Your task to perform on an android device: open a bookmark in the chrome app Image 0: 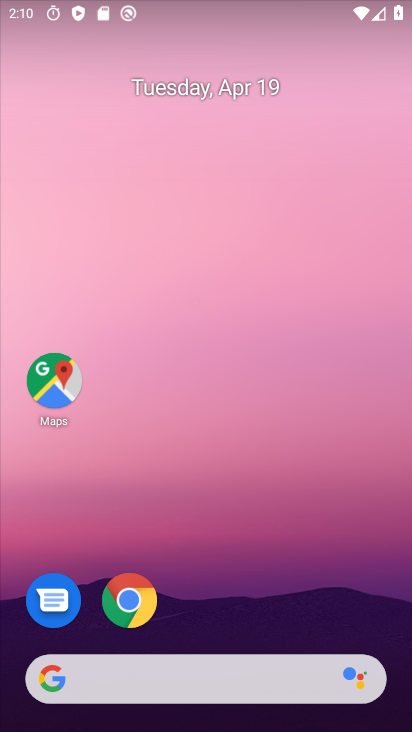
Step 0: drag from (322, 707) to (274, 356)
Your task to perform on an android device: open a bookmark in the chrome app Image 1: 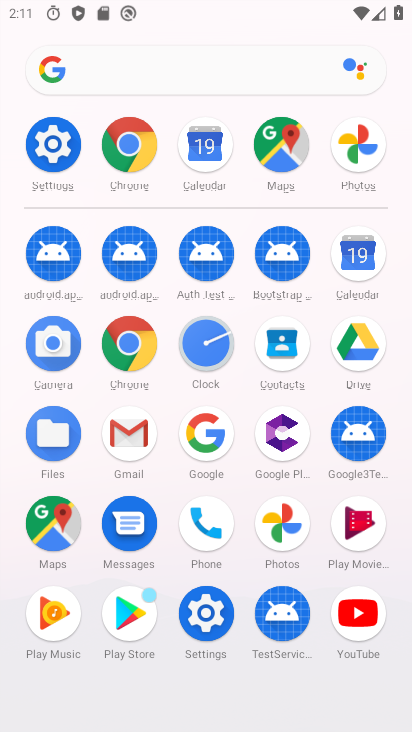
Step 1: click (135, 155)
Your task to perform on an android device: open a bookmark in the chrome app Image 2: 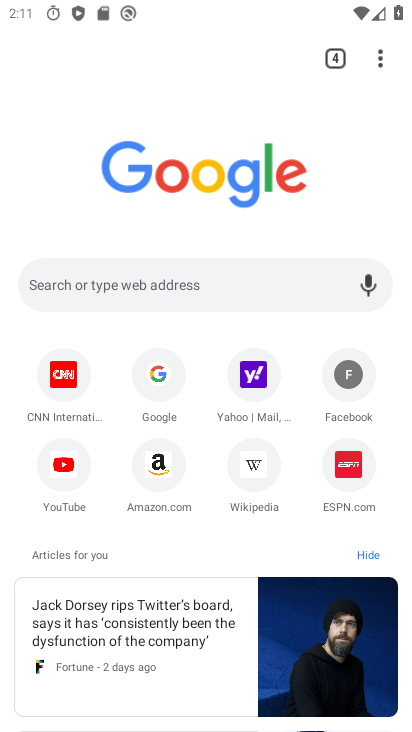
Step 2: click (382, 59)
Your task to perform on an android device: open a bookmark in the chrome app Image 3: 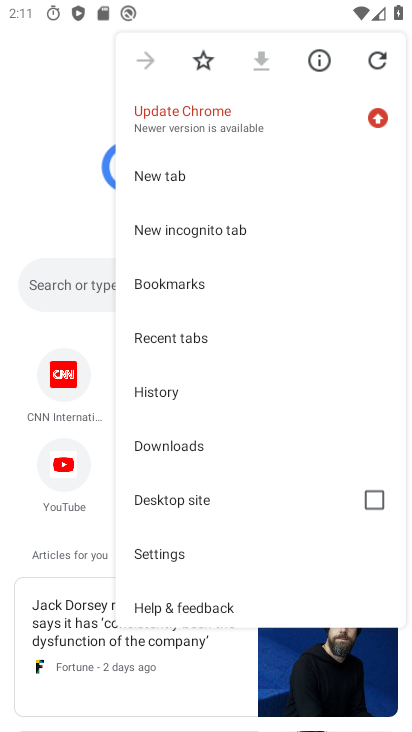
Step 3: click (186, 283)
Your task to perform on an android device: open a bookmark in the chrome app Image 4: 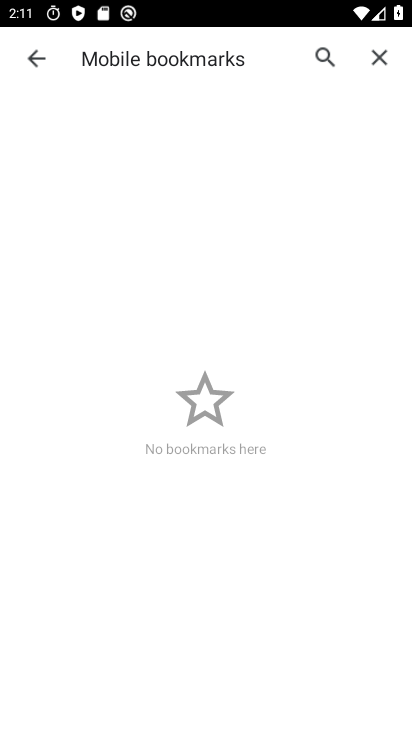
Step 4: task complete